Your task to perform on an android device: When is my next meeting? Image 0: 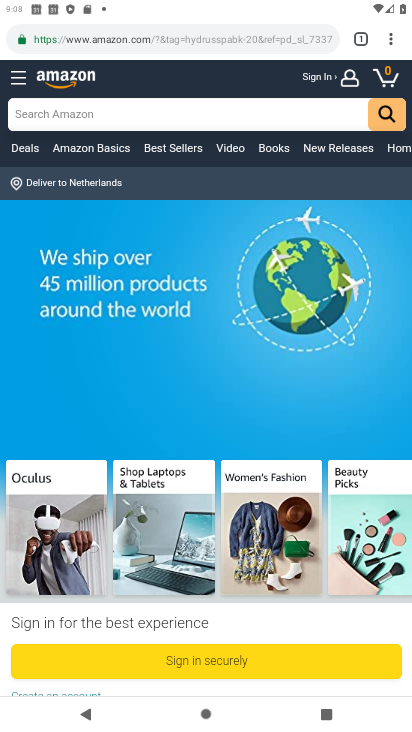
Step 0: press home button
Your task to perform on an android device: When is my next meeting? Image 1: 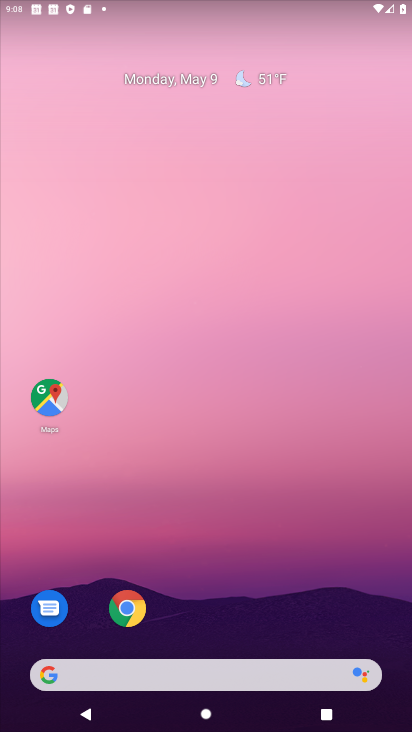
Step 1: drag from (349, 542) to (318, 12)
Your task to perform on an android device: When is my next meeting? Image 2: 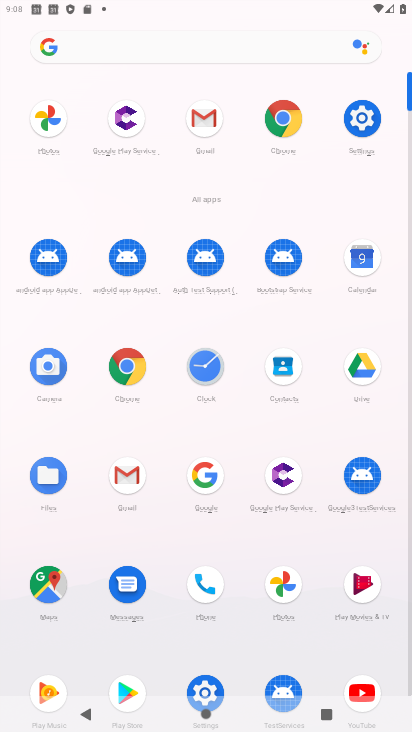
Step 2: click (366, 270)
Your task to perform on an android device: When is my next meeting? Image 3: 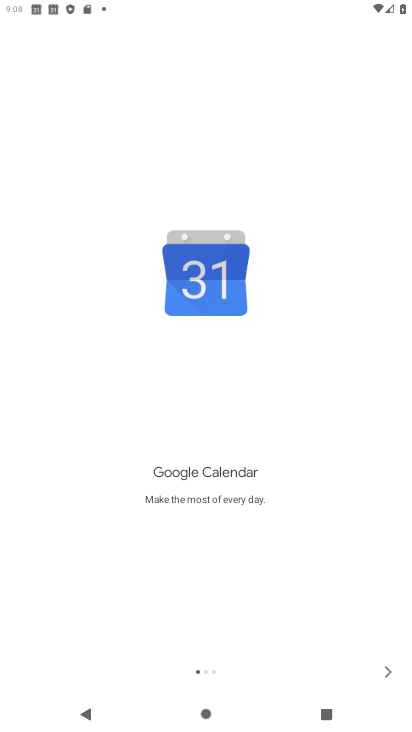
Step 3: click (386, 662)
Your task to perform on an android device: When is my next meeting? Image 4: 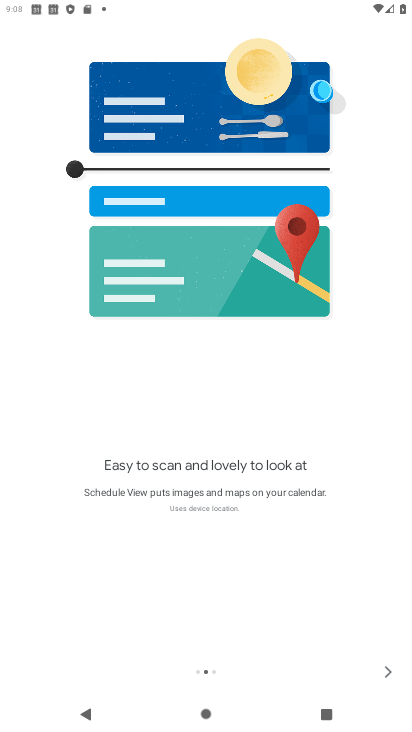
Step 4: click (386, 662)
Your task to perform on an android device: When is my next meeting? Image 5: 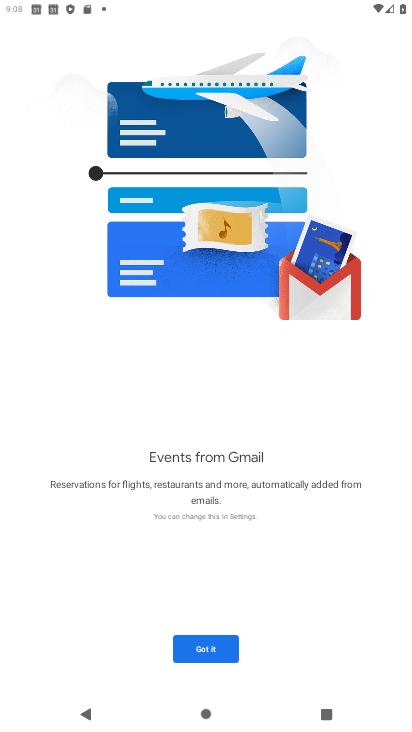
Step 5: click (223, 646)
Your task to perform on an android device: When is my next meeting? Image 6: 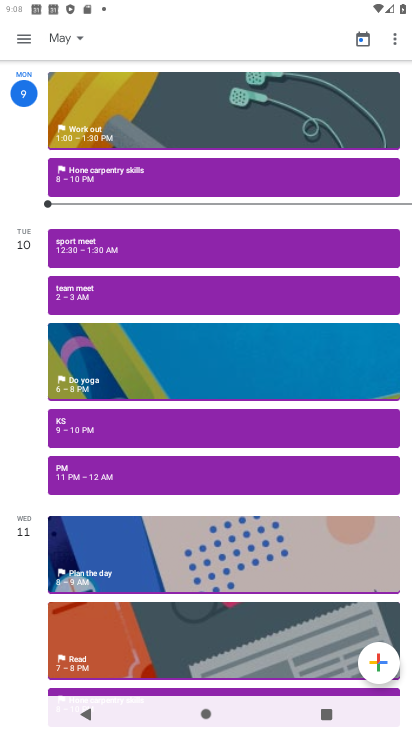
Step 6: drag from (129, 142) to (199, 554)
Your task to perform on an android device: When is my next meeting? Image 7: 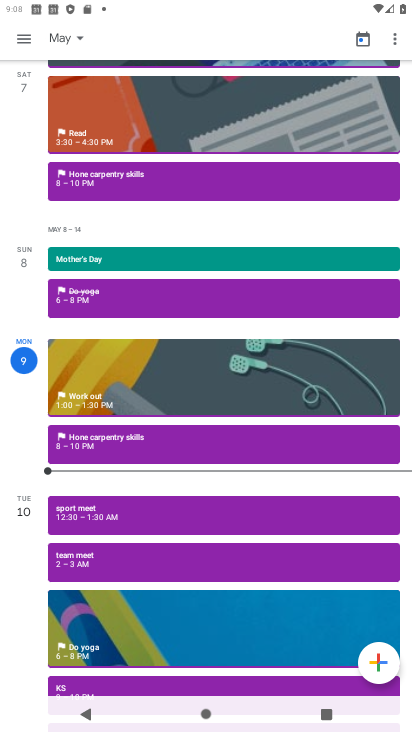
Step 7: drag from (142, 234) to (177, 558)
Your task to perform on an android device: When is my next meeting? Image 8: 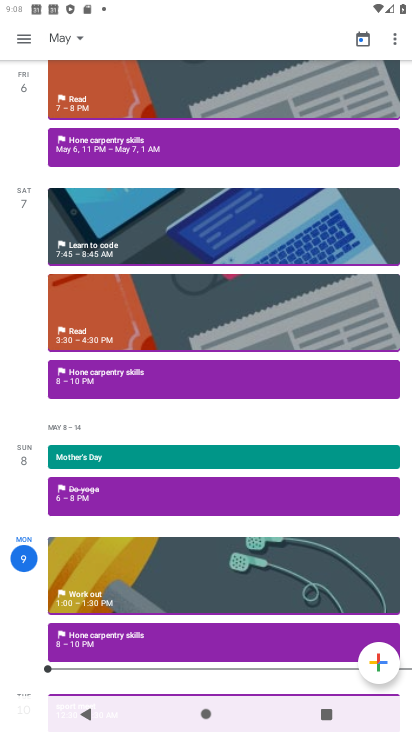
Step 8: drag from (116, 246) to (202, 561)
Your task to perform on an android device: When is my next meeting? Image 9: 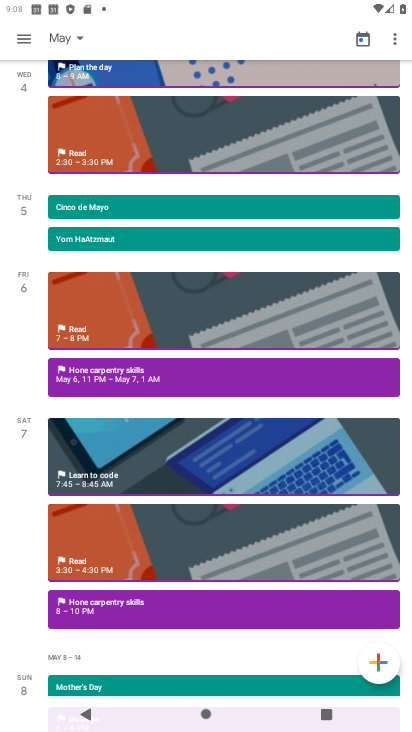
Step 9: drag from (162, 129) to (203, 604)
Your task to perform on an android device: When is my next meeting? Image 10: 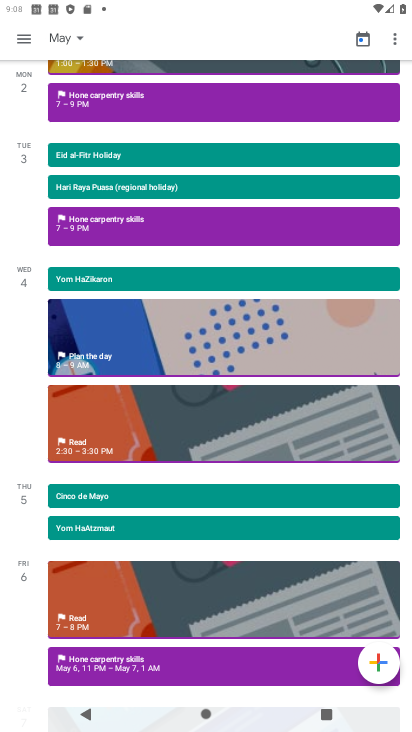
Step 10: click (56, 37)
Your task to perform on an android device: When is my next meeting? Image 11: 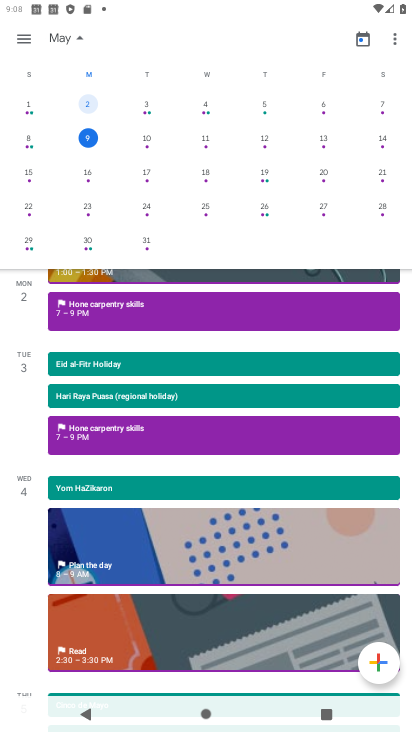
Step 11: task complete